Your task to perform on an android device: turn pop-ups off in chrome Image 0: 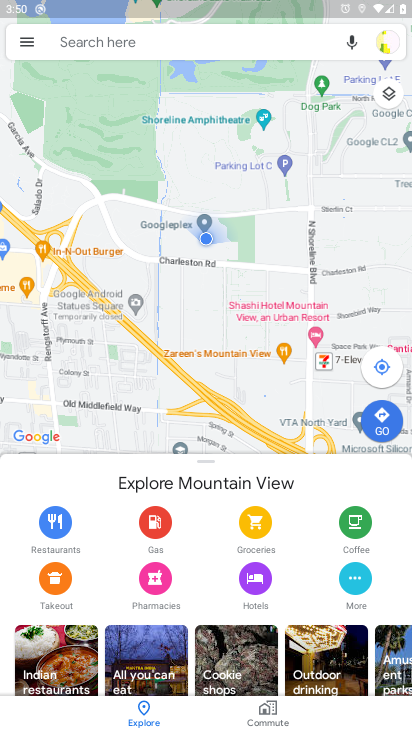
Step 0: press home button
Your task to perform on an android device: turn pop-ups off in chrome Image 1: 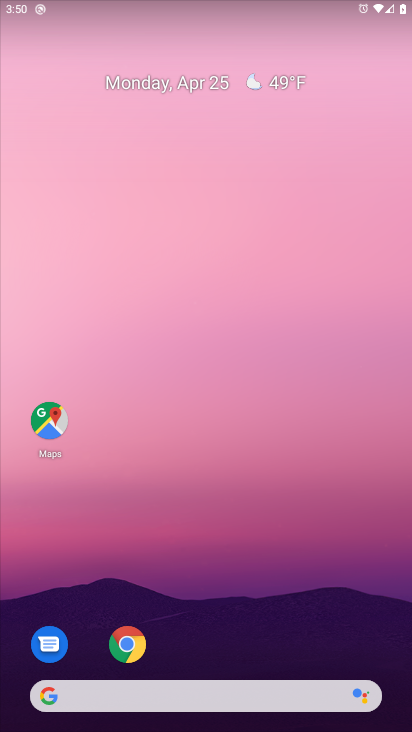
Step 1: drag from (236, 635) to (250, 469)
Your task to perform on an android device: turn pop-ups off in chrome Image 2: 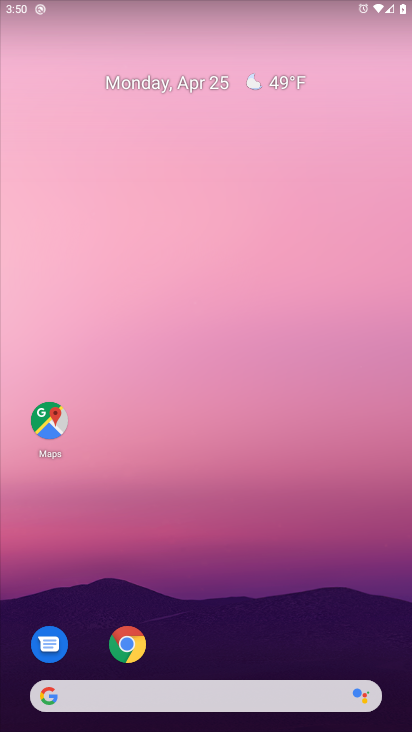
Step 2: click (127, 650)
Your task to perform on an android device: turn pop-ups off in chrome Image 3: 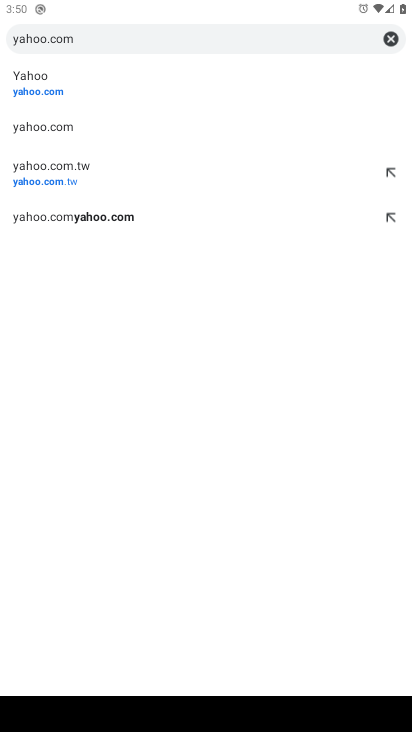
Step 3: press home button
Your task to perform on an android device: turn pop-ups off in chrome Image 4: 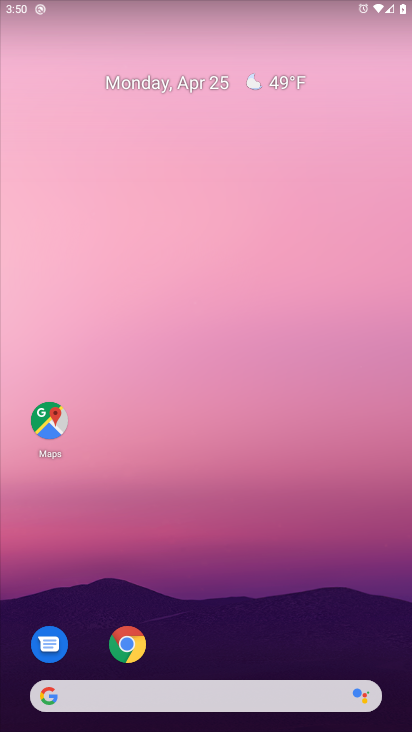
Step 4: click (129, 647)
Your task to perform on an android device: turn pop-ups off in chrome Image 5: 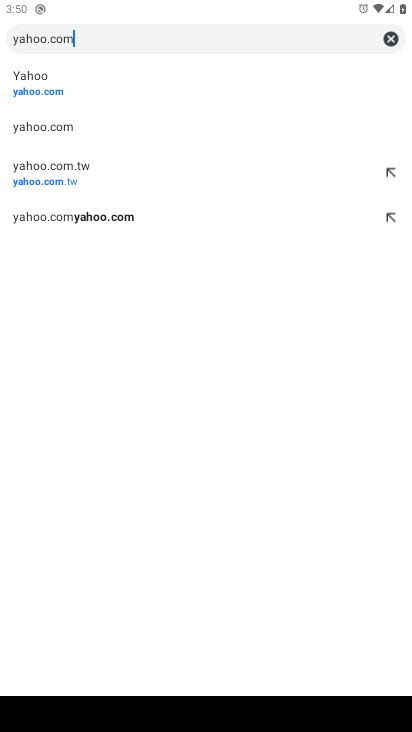
Step 5: click (392, 42)
Your task to perform on an android device: turn pop-ups off in chrome Image 6: 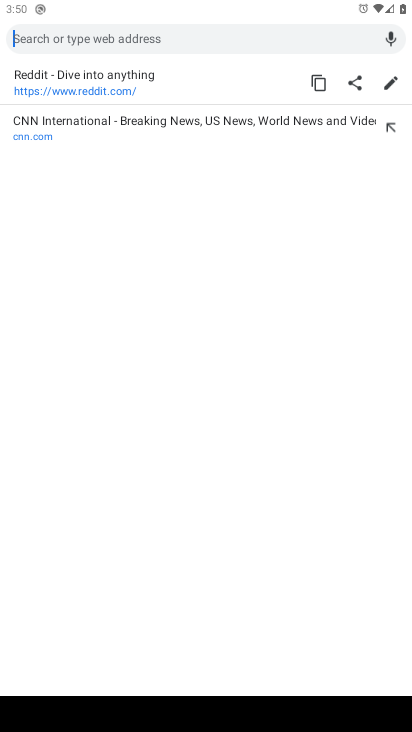
Step 6: click (392, 42)
Your task to perform on an android device: turn pop-ups off in chrome Image 7: 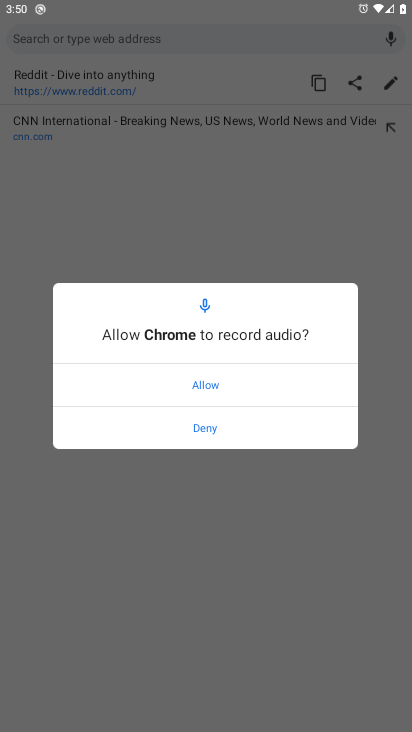
Step 7: click (410, 394)
Your task to perform on an android device: turn pop-ups off in chrome Image 8: 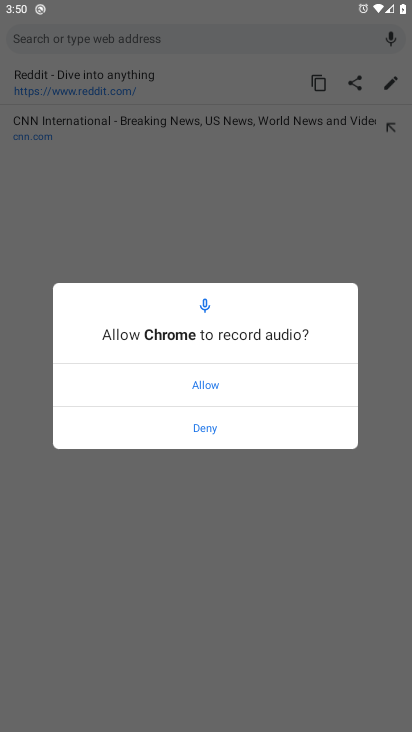
Step 8: click (332, 516)
Your task to perform on an android device: turn pop-ups off in chrome Image 9: 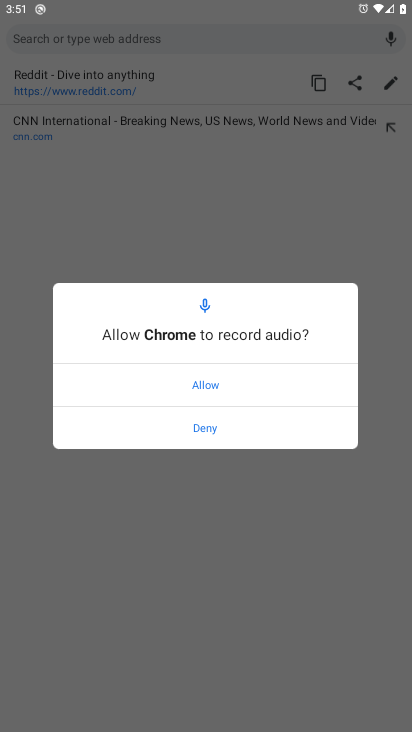
Step 9: task complete